Your task to perform on an android device: see creations saved in the google photos Image 0: 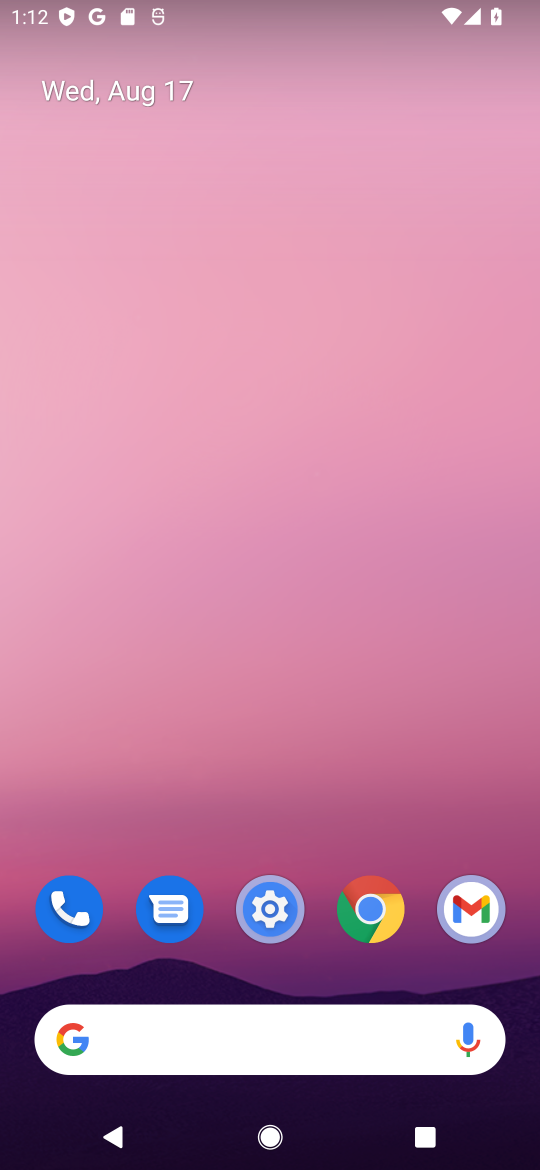
Step 0: drag from (295, 822) to (249, 82)
Your task to perform on an android device: see creations saved in the google photos Image 1: 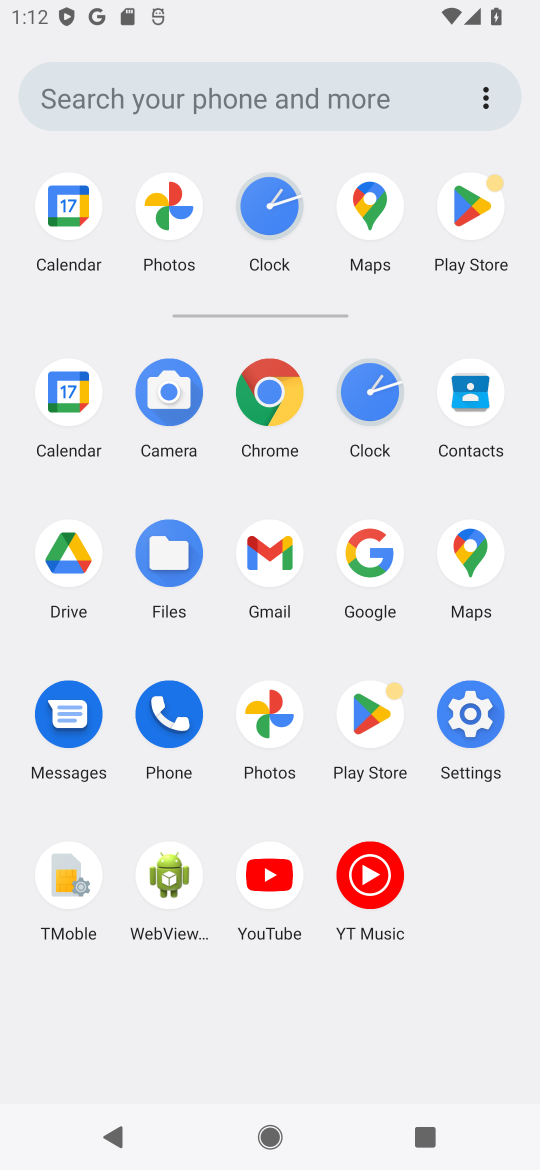
Step 1: click (169, 197)
Your task to perform on an android device: see creations saved in the google photos Image 2: 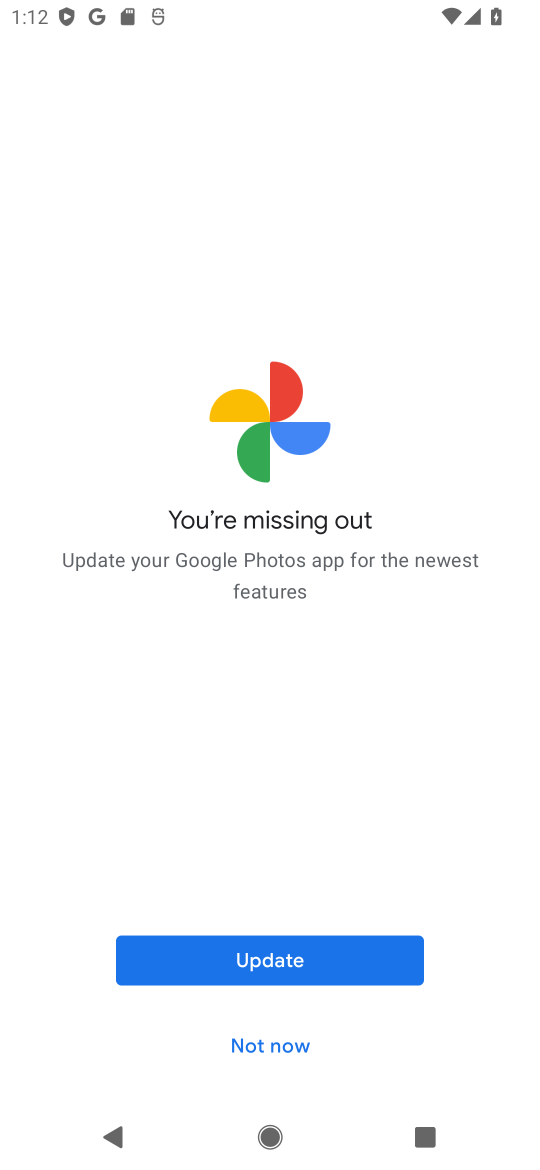
Step 2: click (233, 965)
Your task to perform on an android device: see creations saved in the google photos Image 3: 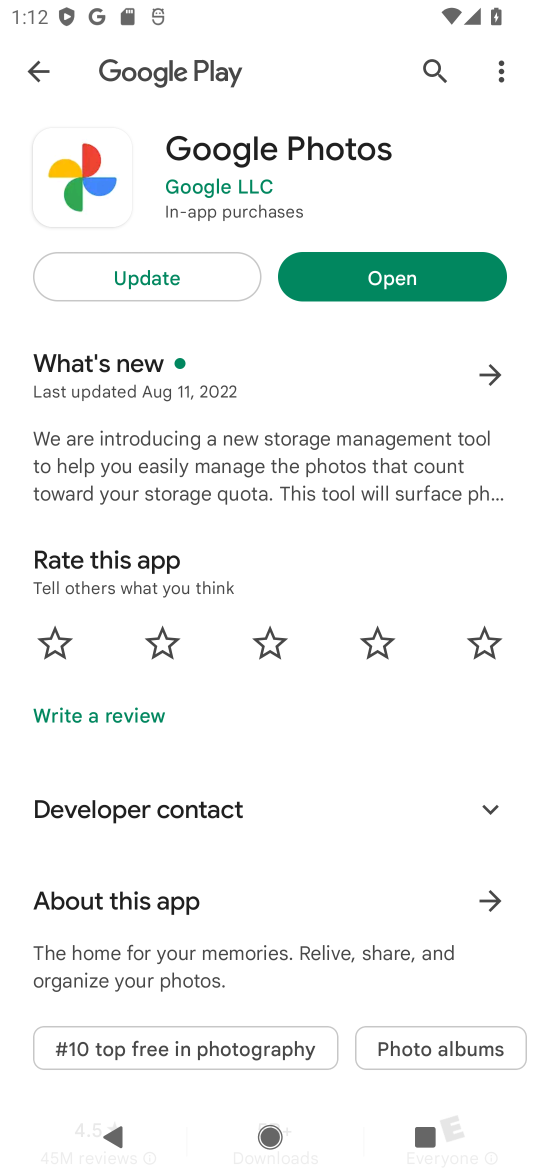
Step 3: click (165, 280)
Your task to perform on an android device: see creations saved in the google photos Image 4: 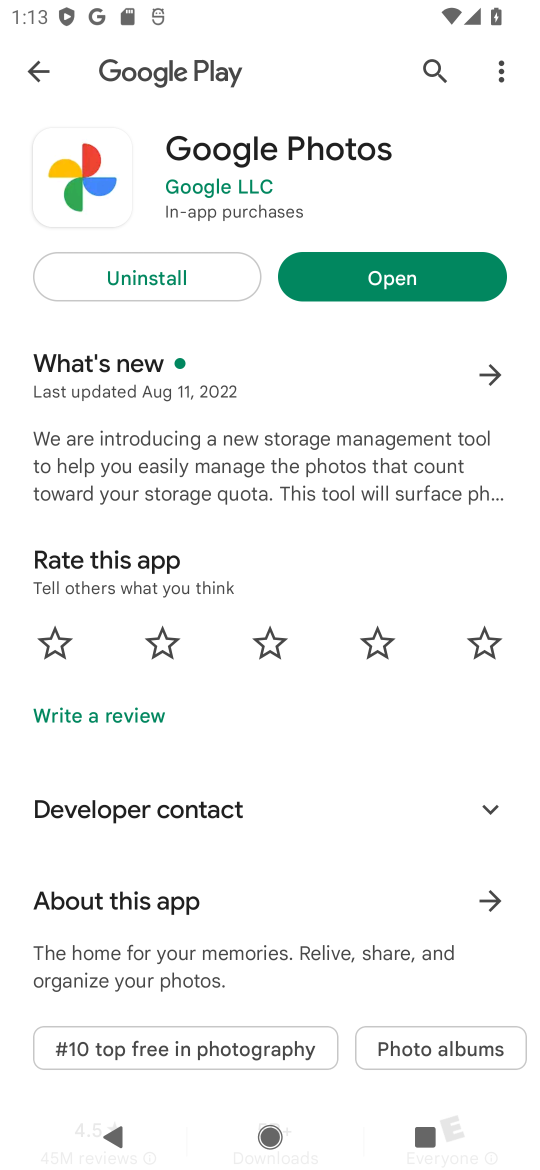
Step 4: click (407, 287)
Your task to perform on an android device: see creations saved in the google photos Image 5: 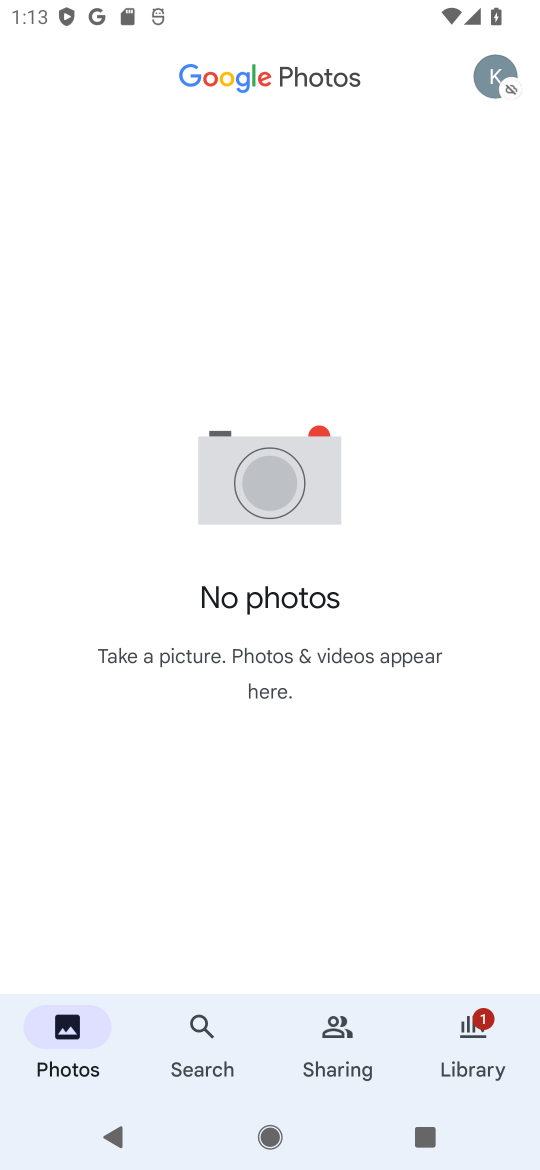
Step 5: click (190, 1032)
Your task to perform on an android device: see creations saved in the google photos Image 6: 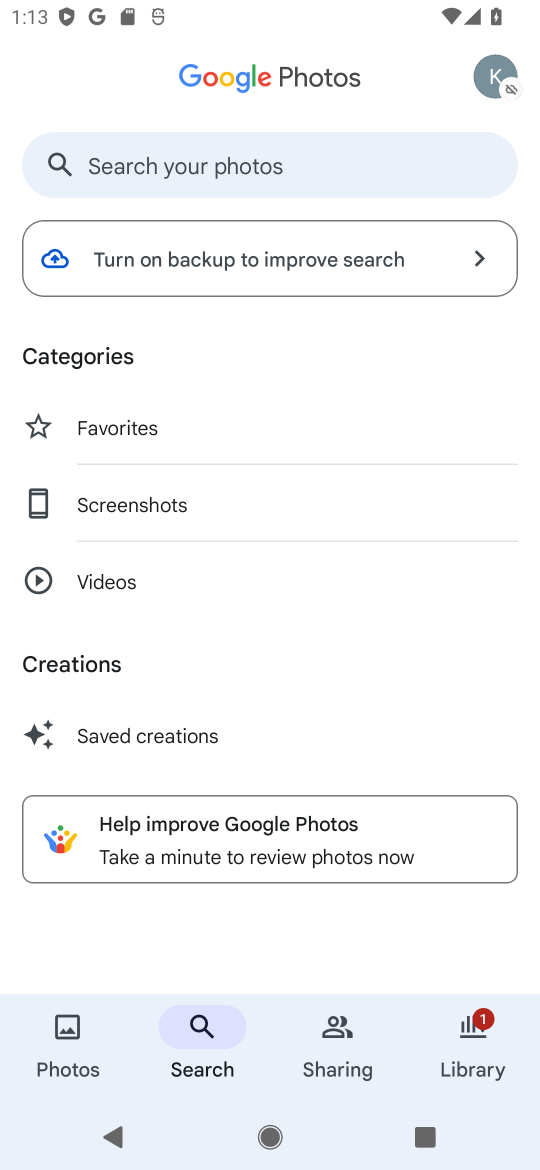
Step 6: click (177, 169)
Your task to perform on an android device: see creations saved in the google photos Image 7: 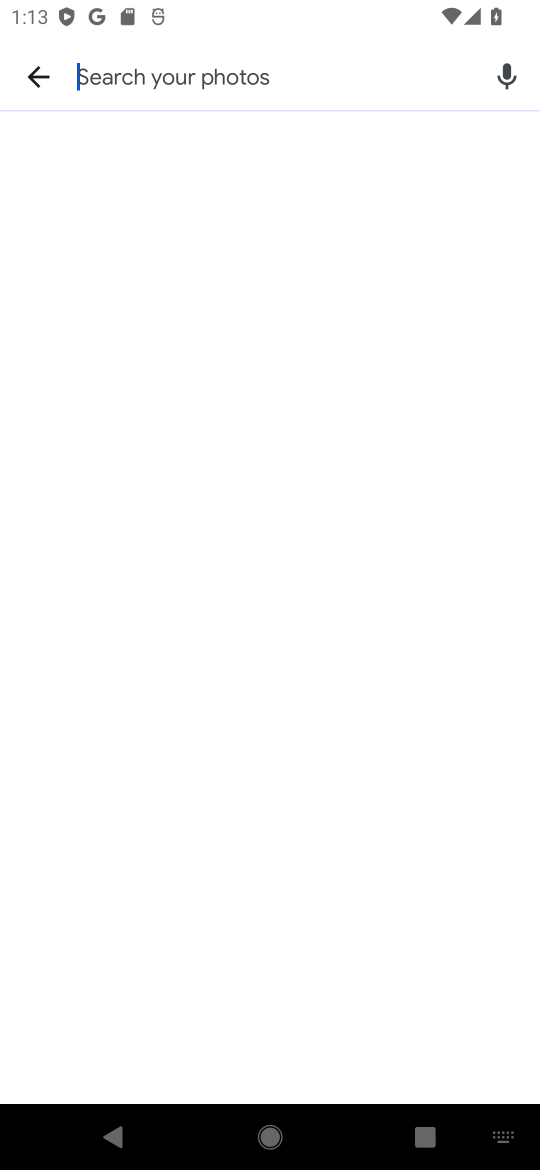
Step 7: type "creation"
Your task to perform on an android device: see creations saved in the google photos Image 8: 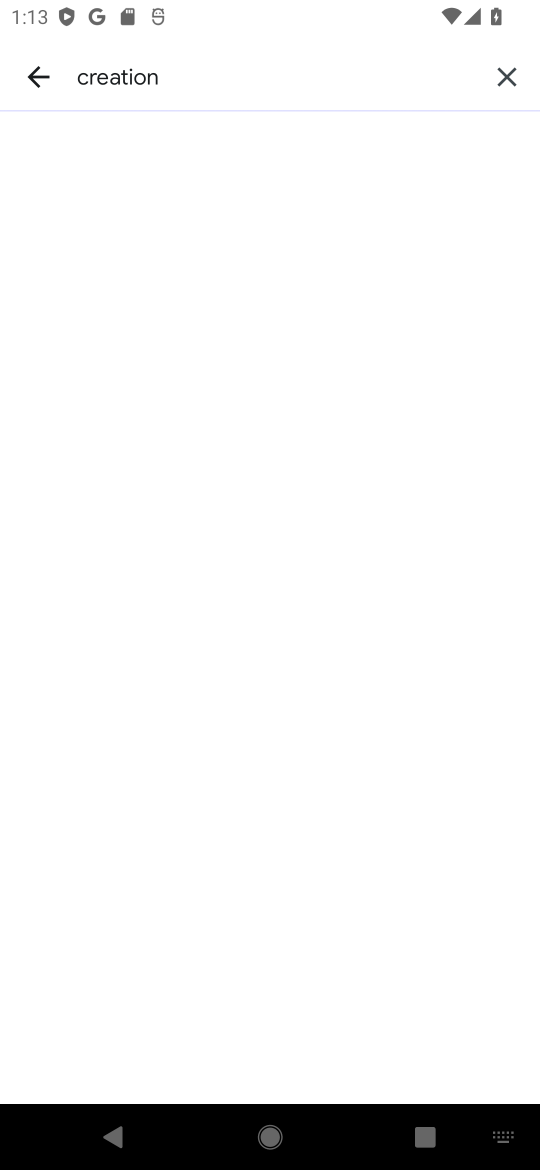
Step 8: task complete